Your task to perform on an android device: set an alarm Image 0: 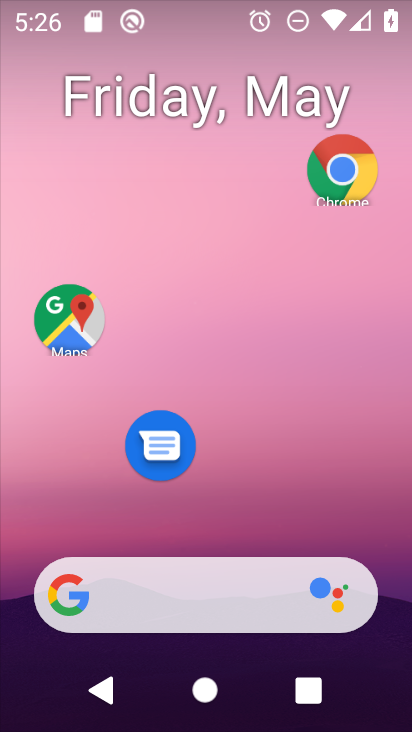
Step 0: drag from (210, 513) to (292, 72)
Your task to perform on an android device: set an alarm Image 1: 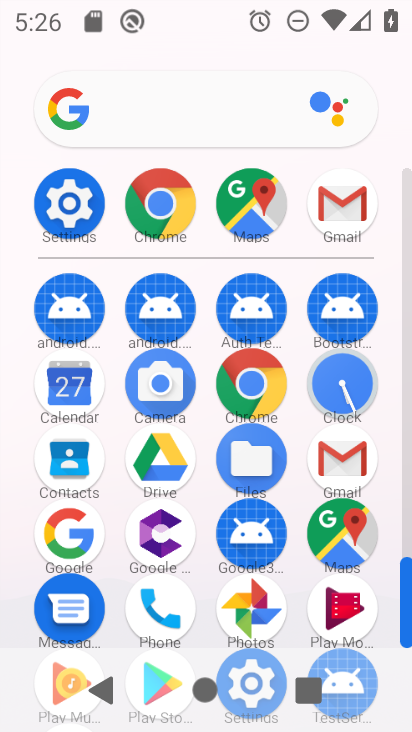
Step 1: click (338, 382)
Your task to perform on an android device: set an alarm Image 2: 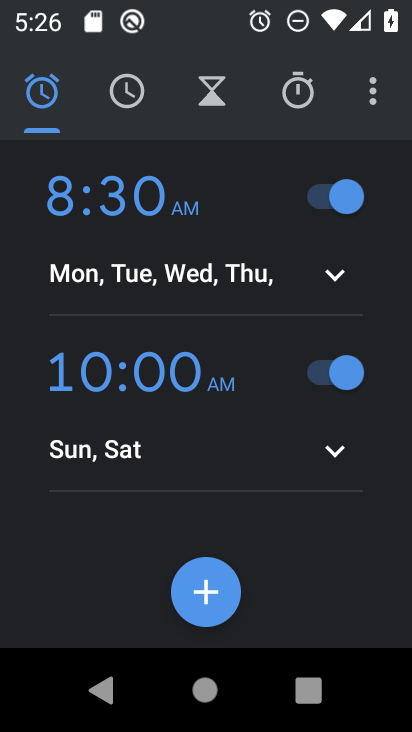
Step 2: click (149, 376)
Your task to perform on an android device: set an alarm Image 3: 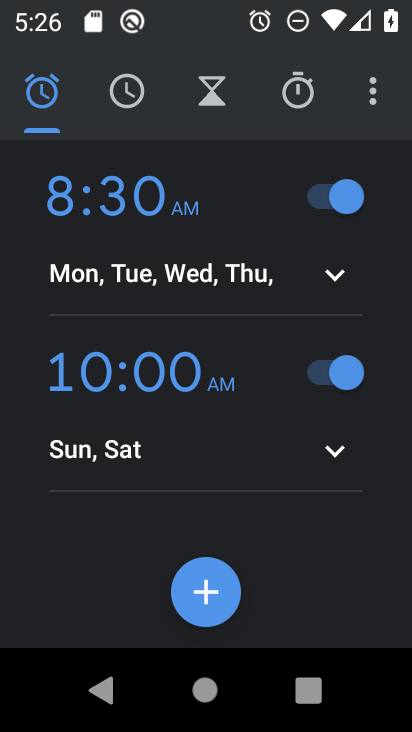
Step 3: click (149, 376)
Your task to perform on an android device: set an alarm Image 4: 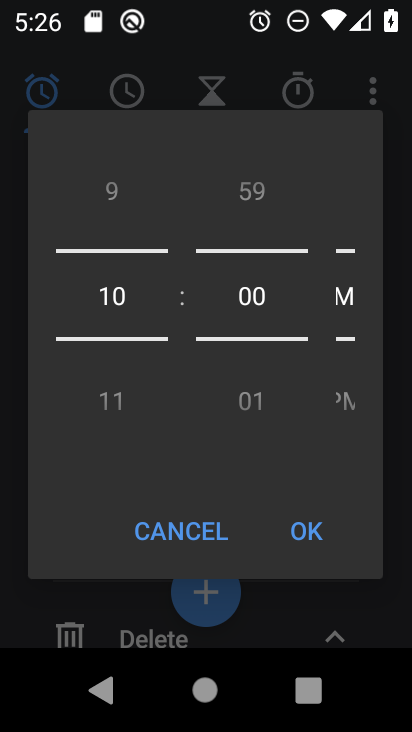
Step 4: drag from (123, 305) to (116, 410)
Your task to perform on an android device: set an alarm Image 5: 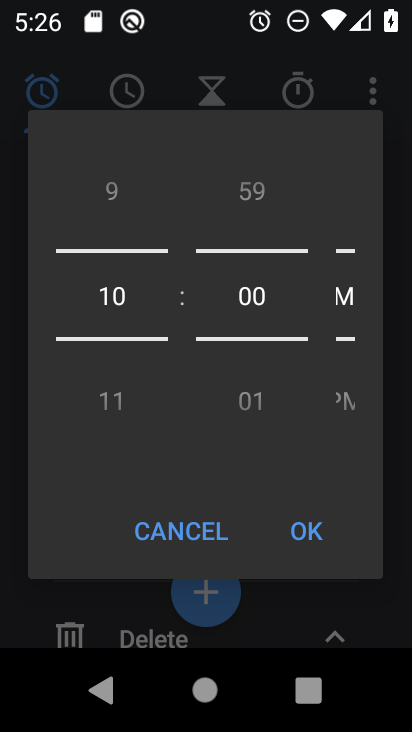
Step 5: drag from (122, 314) to (121, 222)
Your task to perform on an android device: set an alarm Image 6: 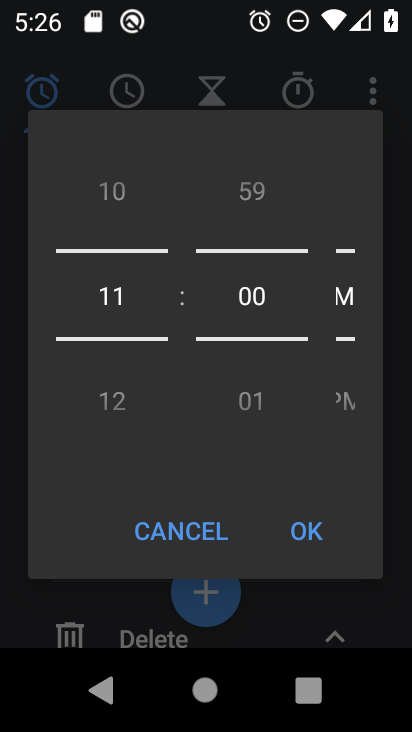
Step 6: click (323, 548)
Your task to perform on an android device: set an alarm Image 7: 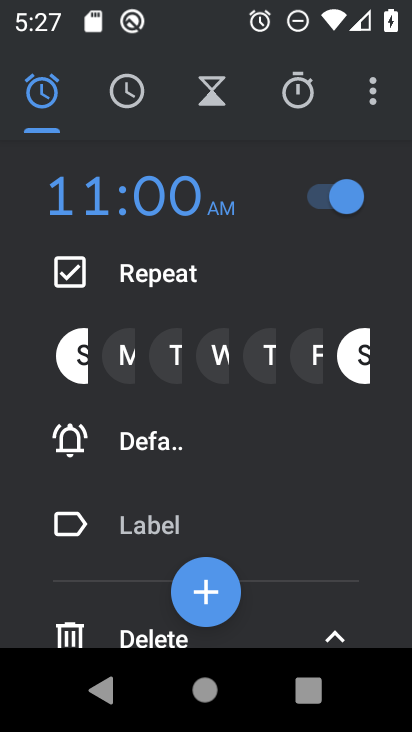
Step 7: click (336, 640)
Your task to perform on an android device: set an alarm Image 8: 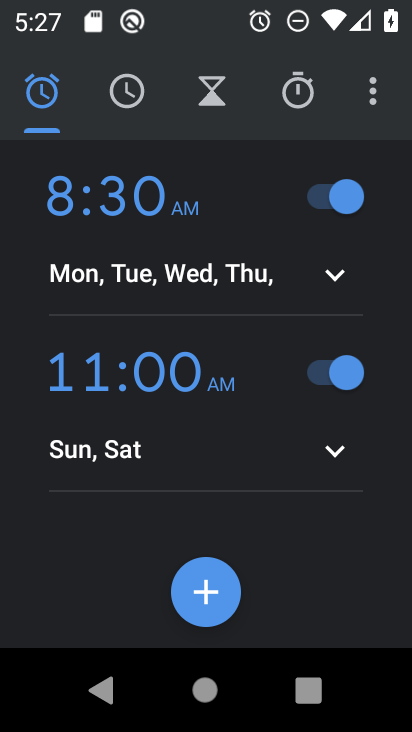
Step 8: task complete